Your task to perform on an android device: Go to wifi settings Image 0: 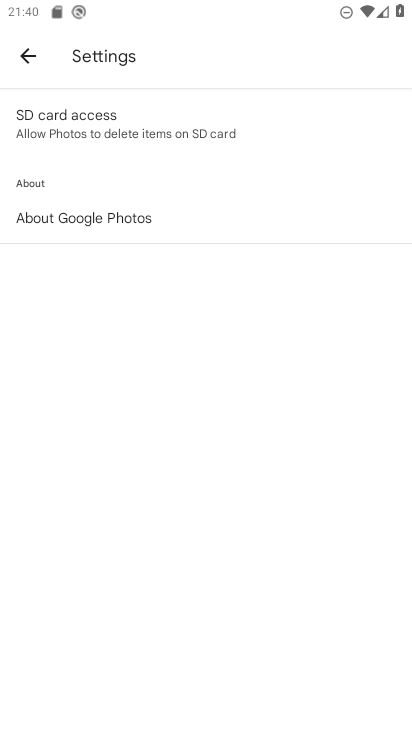
Step 0: press home button
Your task to perform on an android device: Go to wifi settings Image 1: 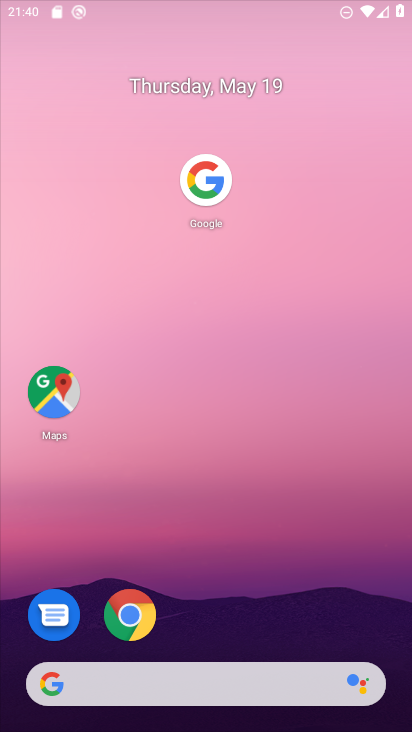
Step 1: drag from (186, 589) to (183, 69)
Your task to perform on an android device: Go to wifi settings Image 2: 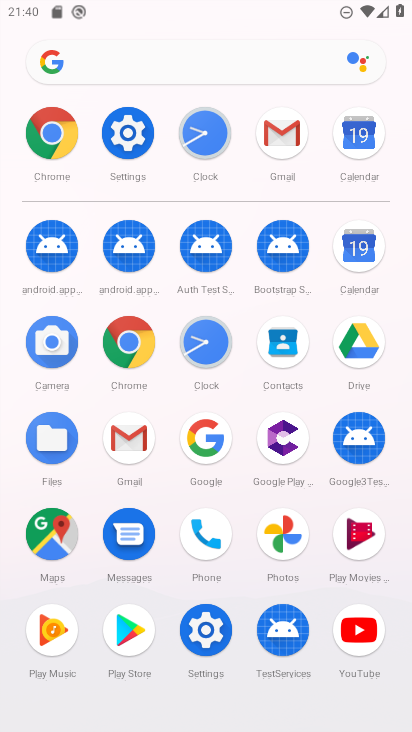
Step 2: click (130, 133)
Your task to perform on an android device: Go to wifi settings Image 3: 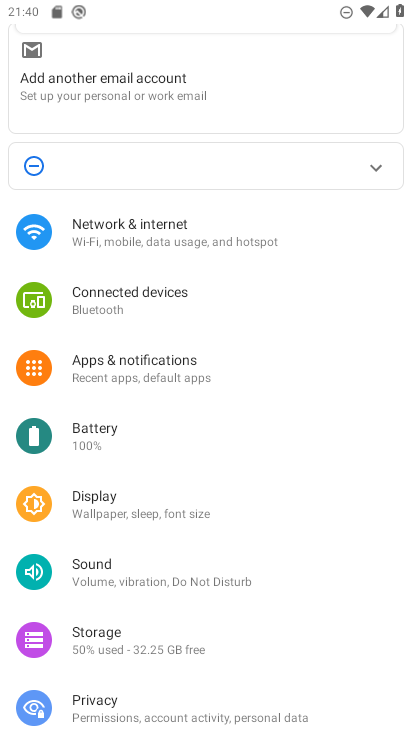
Step 3: click (172, 230)
Your task to perform on an android device: Go to wifi settings Image 4: 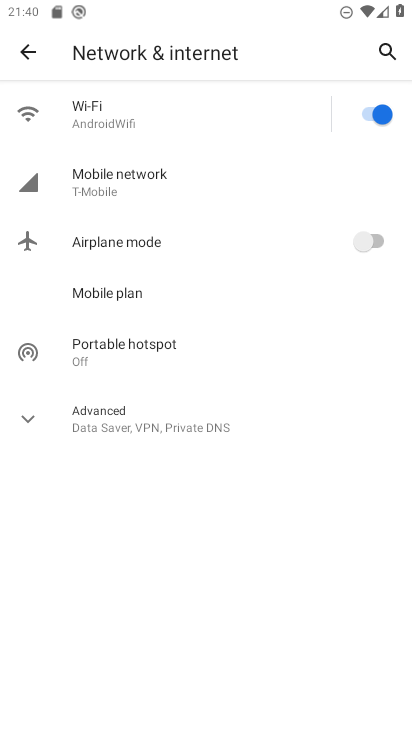
Step 4: click (128, 114)
Your task to perform on an android device: Go to wifi settings Image 5: 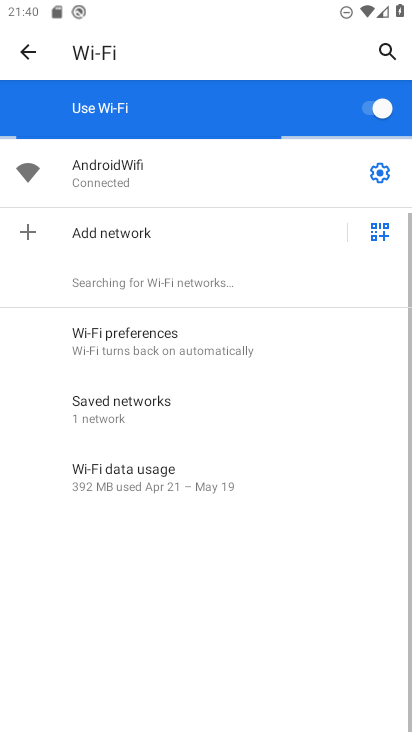
Step 5: click (394, 161)
Your task to perform on an android device: Go to wifi settings Image 6: 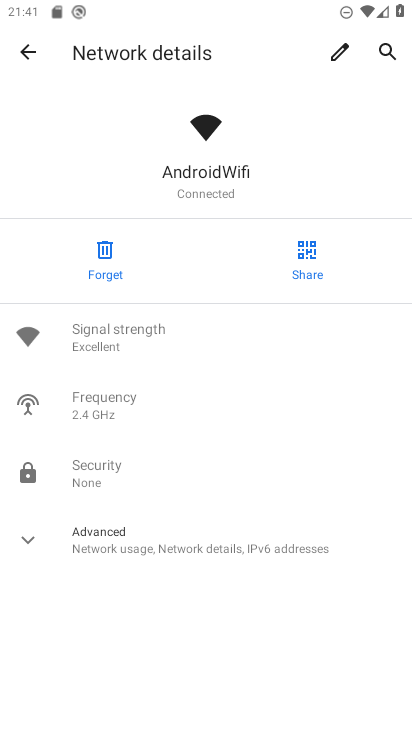
Step 6: task complete